Your task to perform on an android device: allow notifications from all sites in the chrome app Image 0: 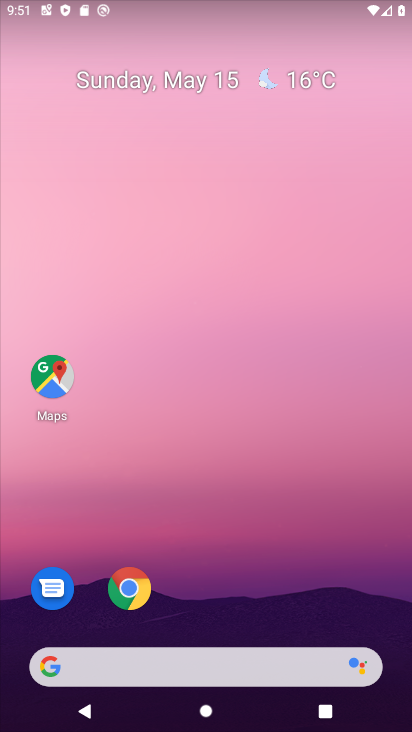
Step 0: click (124, 594)
Your task to perform on an android device: allow notifications from all sites in the chrome app Image 1: 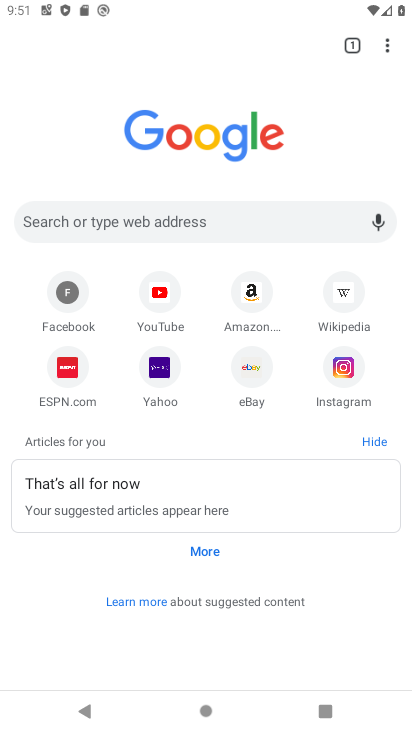
Step 1: click (384, 41)
Your task to perform on an android device: allow notifications from all sites in the chrome app Image 2: 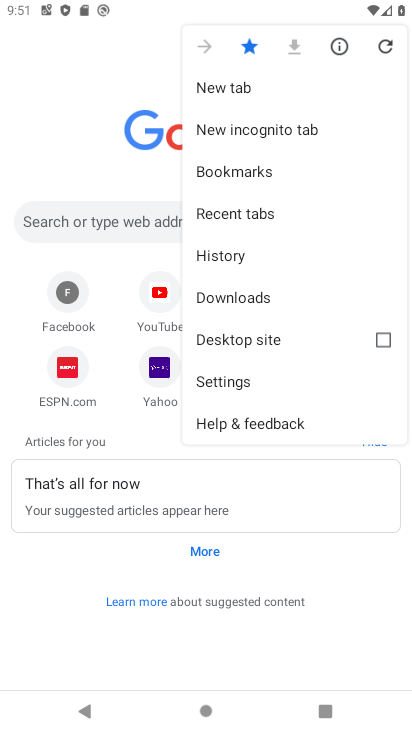
Step 2: click (237, 386)
Your task to perform on an android device: allow notifications from all sites in the chrome app Image 3: 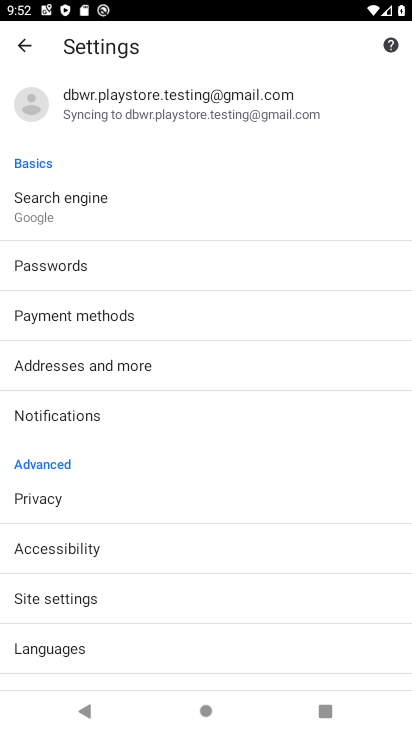
Step 3: drag from (118, 570) to (130, 374)
Your task to perform on an android device: allow notifications from all sites in the chrome app Image 4: 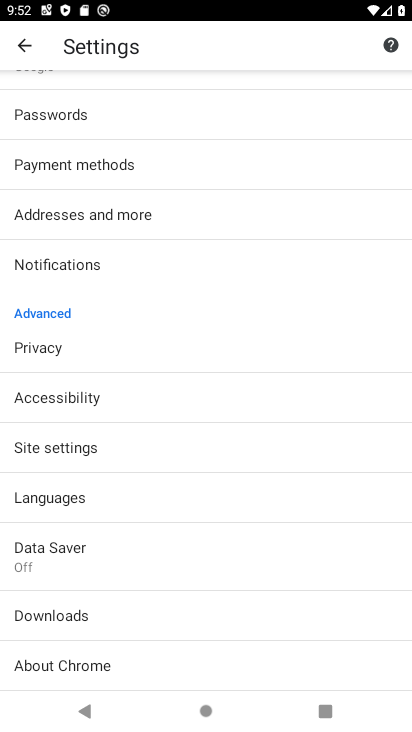
Step 4: click (92, 448)
Your task to perform on an android device: allow notifications from all sites in the chrome app Image 5: 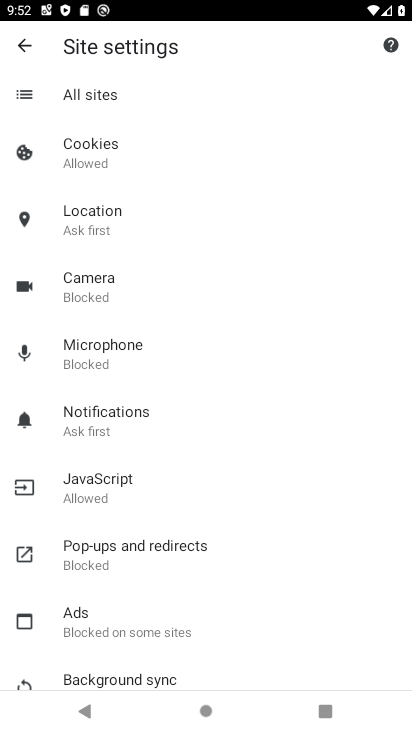
Step 5: click (128, 420)
Your task to perform on an android device: allow notifications from all sites in the chrome app Image 6: 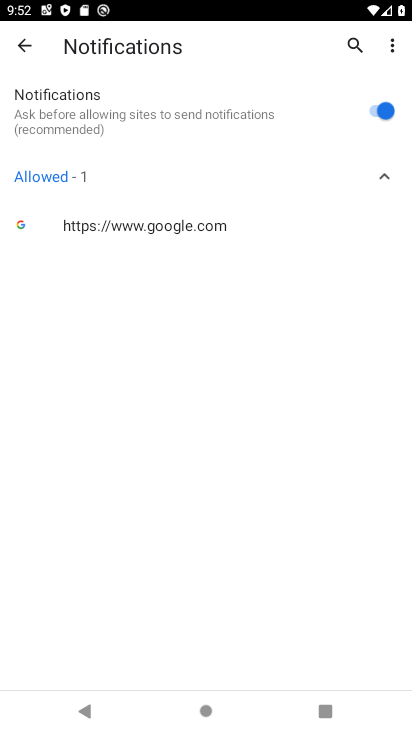
Step 6: task complete